Your task to perform on an android device: check storage Image 0: 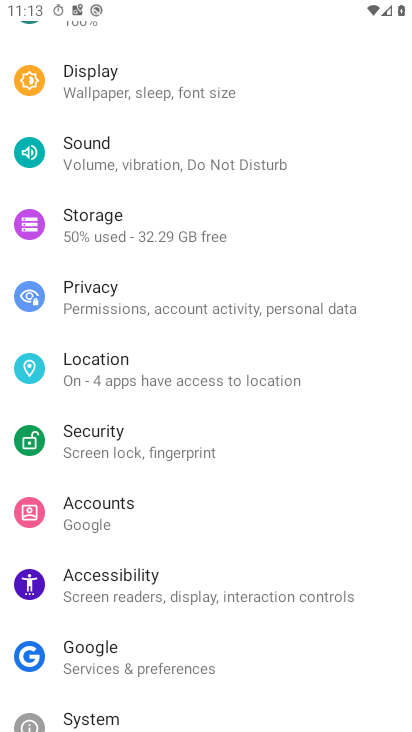
Step 0: click (161, 230)
Your task to perform on an android device: check storage Image 1: 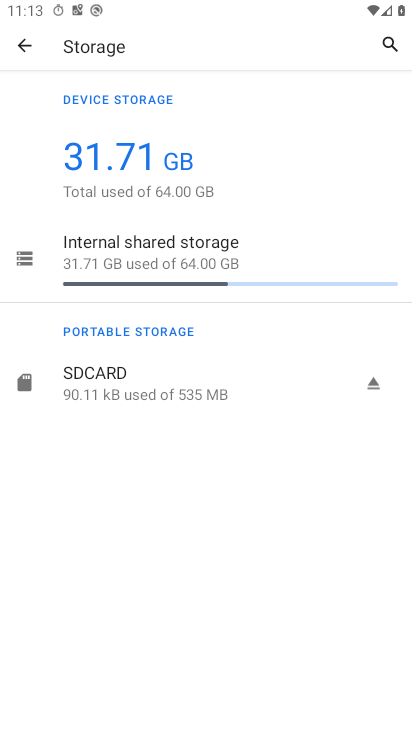
Step 1: click (176, 270)
Your task to perform on an android device: check storage Image 2: 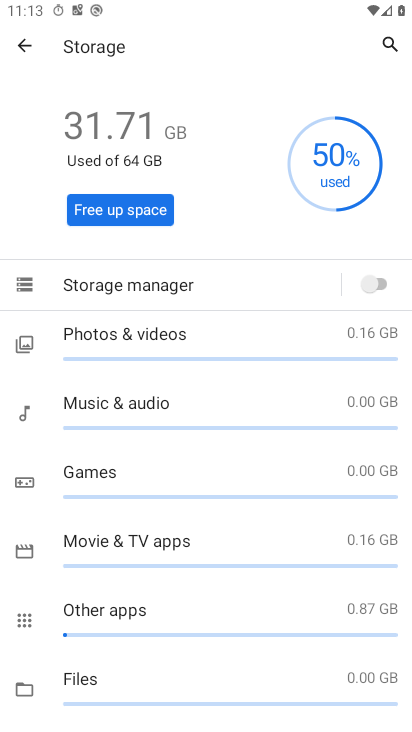
Step 2: task complete